Your task to perform on an android device: Clear all items from cart on newegg. Image 0: 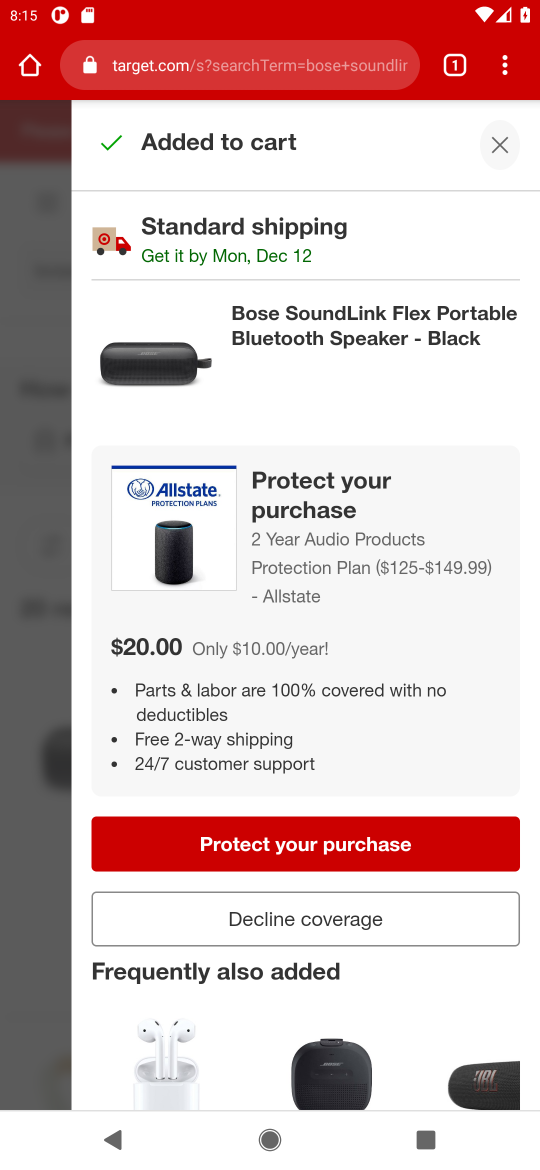
Step 0: click (214, 66)
Your task to perform on an android device: Clear all items from cart on newegg. Image 1: 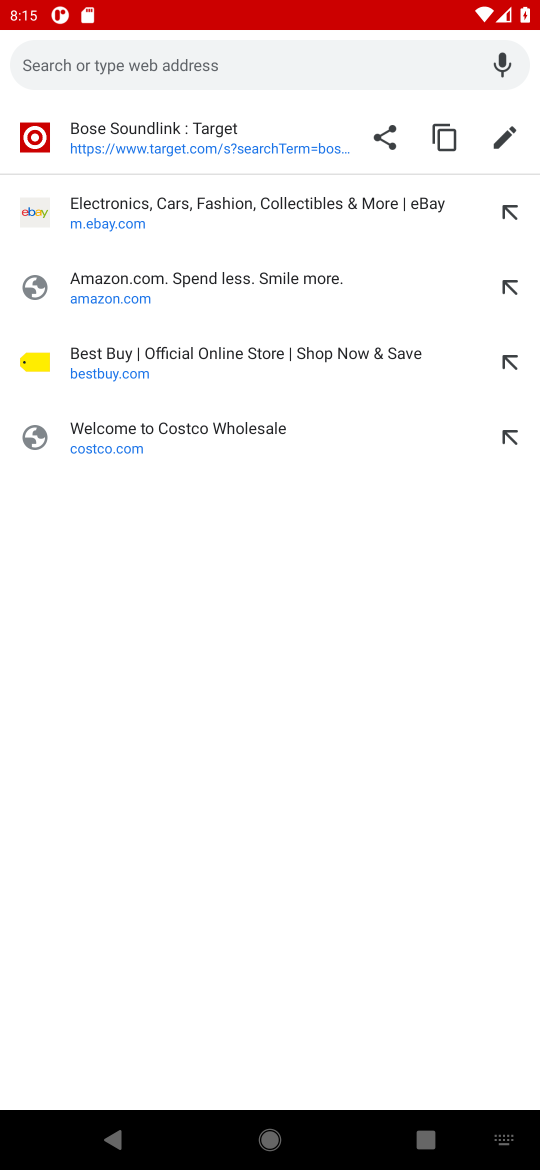
Step 1: type "newegg.com"
Your task to perform on an android device: Clear all items from cart on newegg. Image 2: 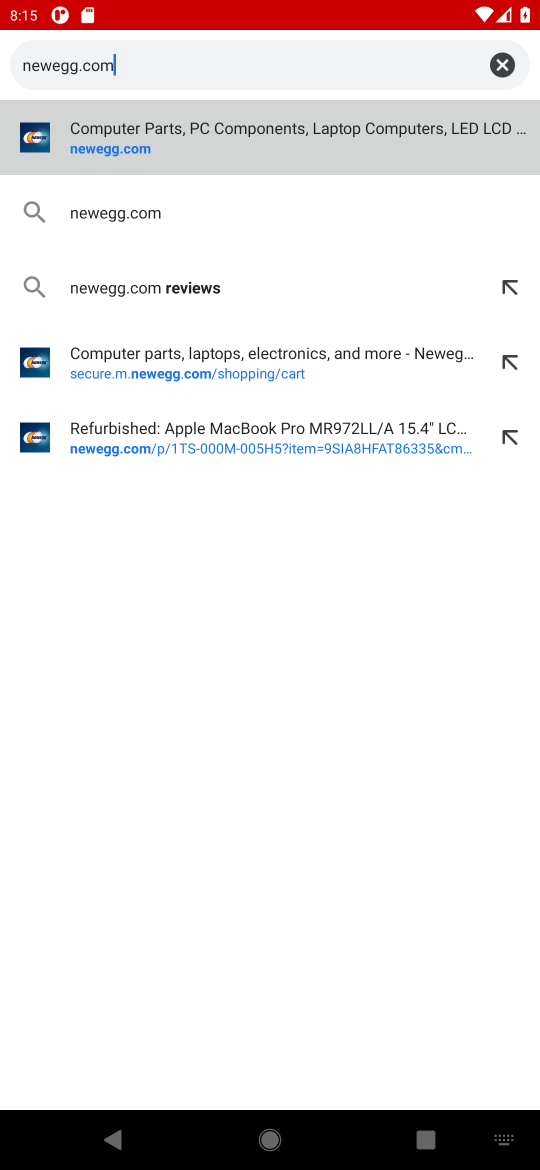
Step 2: click (94, 147)
Your task to perform on an android device: Clear all items from cart on newegg. Image 3: 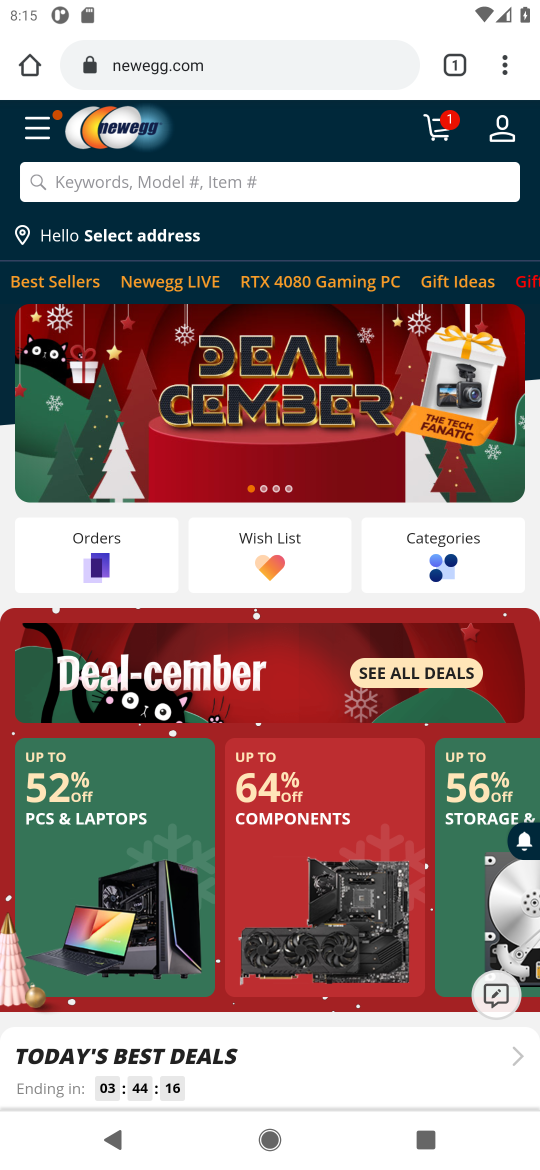
Step 3: click (429, 135)
Your task to perform on an android device: Clear all items from cart on newegg. Image 4: 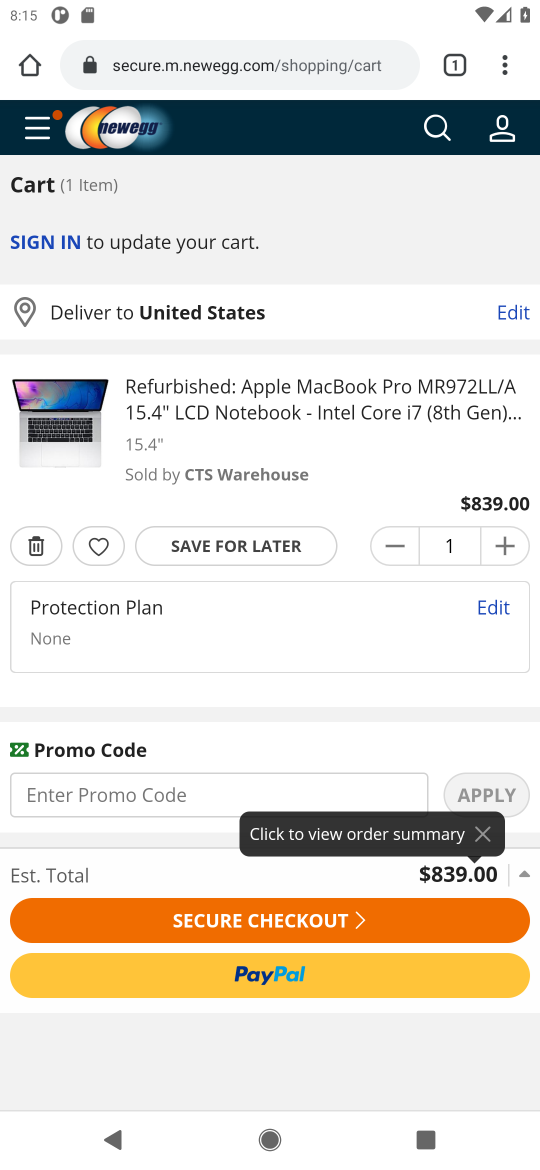
Step 4: click (36, 552)
Your task to perform on an android device: Clear all items from cart on newegg. Image 5: 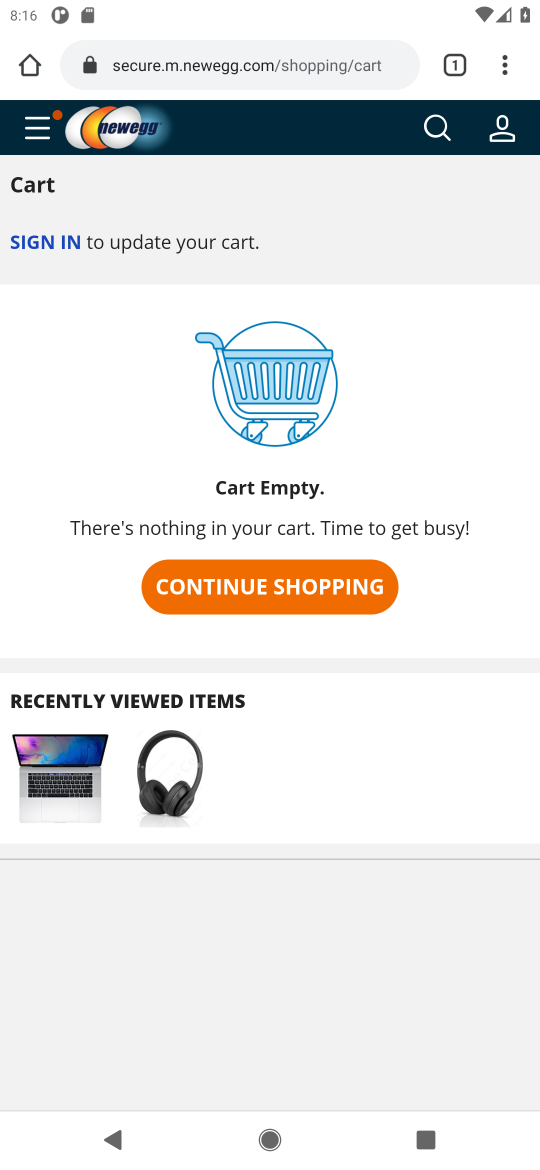
Step 5: task complete